Your task to perform on an android device: toggle javascript in the chrome app Image 0: 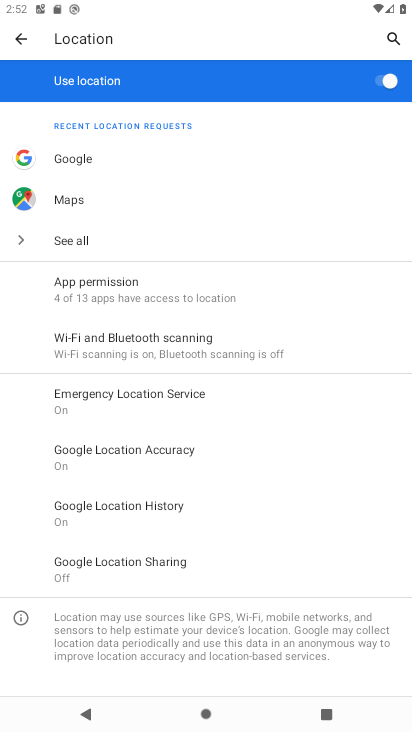
Step 0: task complete